Your task to perform on an android device: toggle improve location accuracy Image 0: 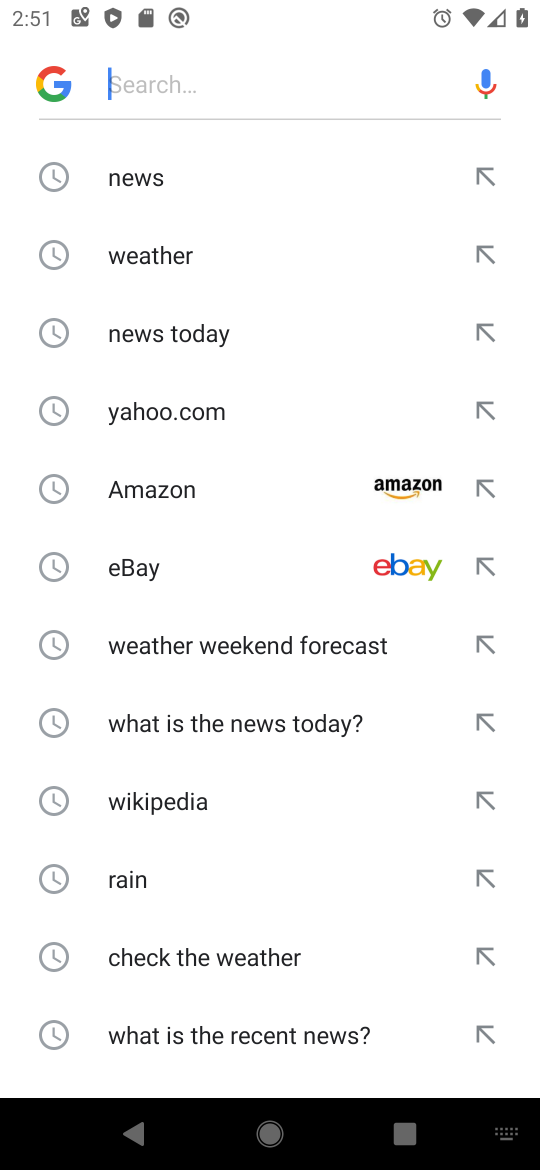
Step 0: press home button
Your task to perform on an android device: toggle improve location accuracy Image 1: 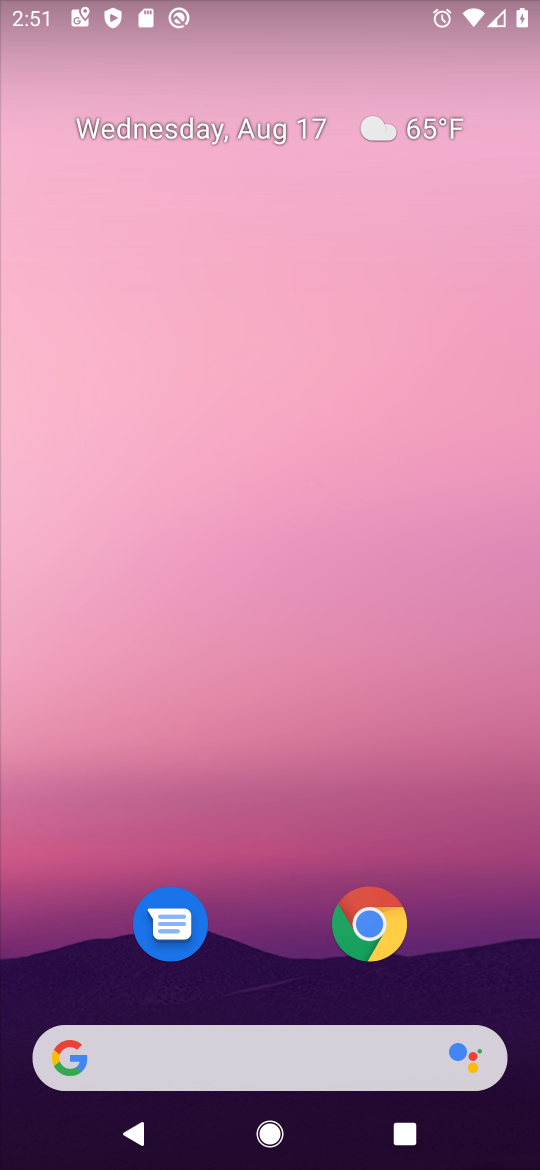
Step 1: drag from (240, 1065) to (170, 154)
Your task to perform on an android device: toggle improve location accuracy Image 2: 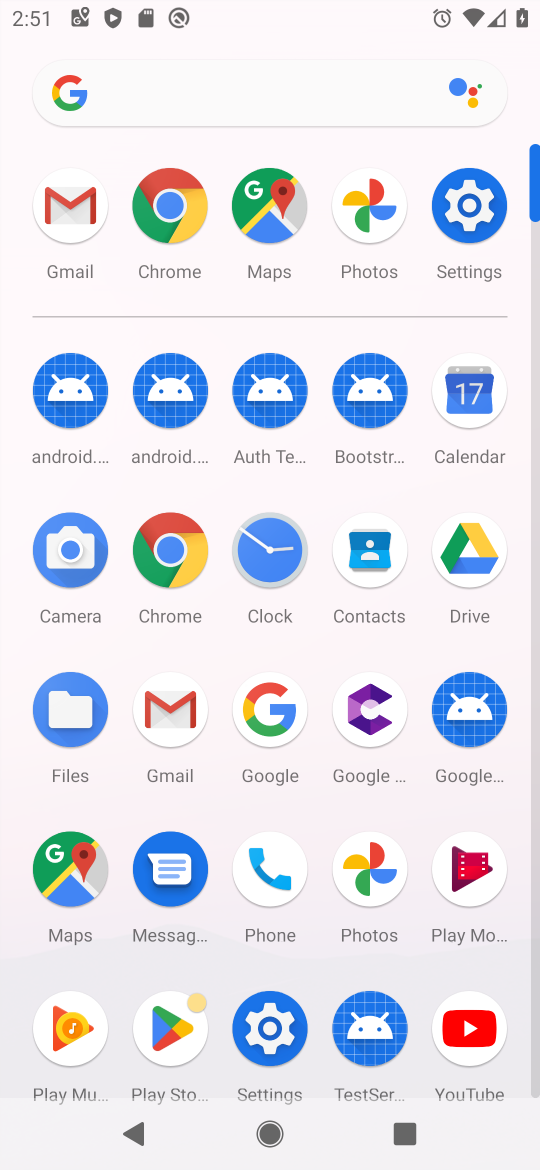
Step 2: click (468, 206)
Your task to perform on an android device: toggle improve location accuracy Image 3: 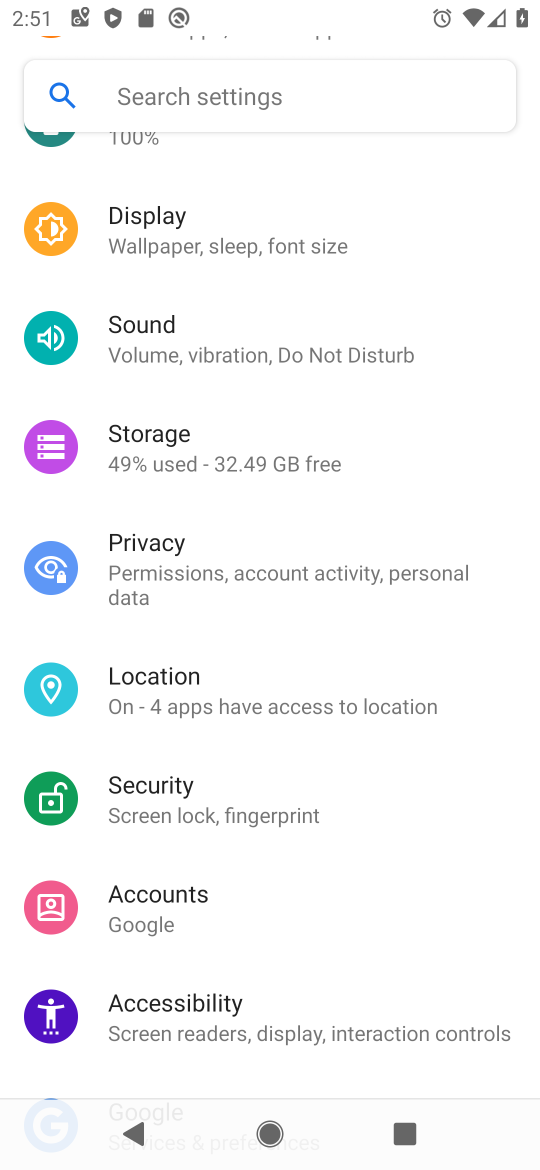
Step 3: click (192, 709)
Your task to perform on an android device: toggle improve location accuracy Image 4: 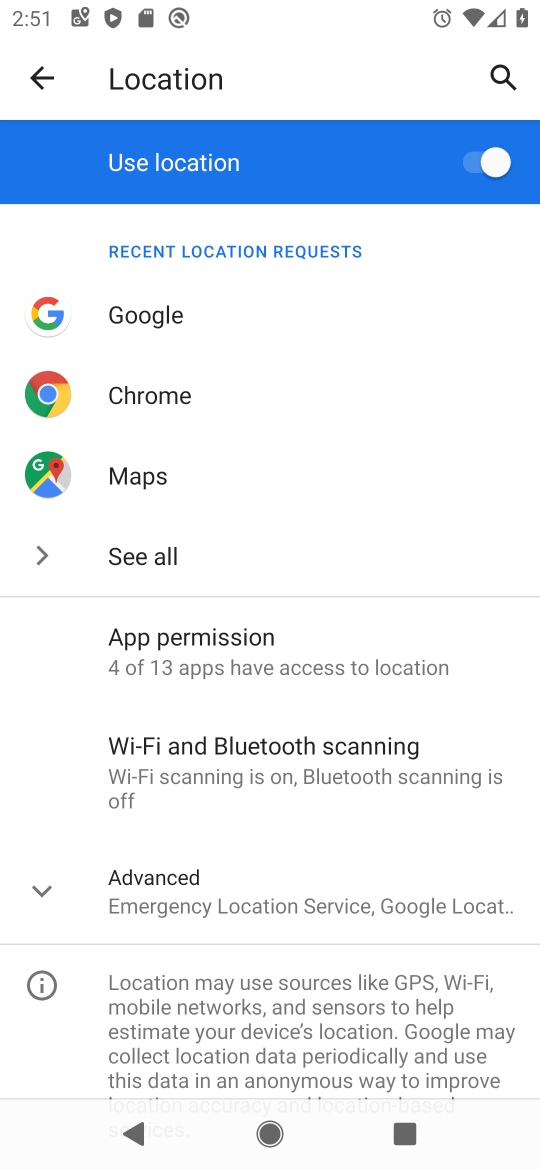
Step 4: click (187, 897)
Your task to perform on an android device: toggle improve location accuracy Image 5: 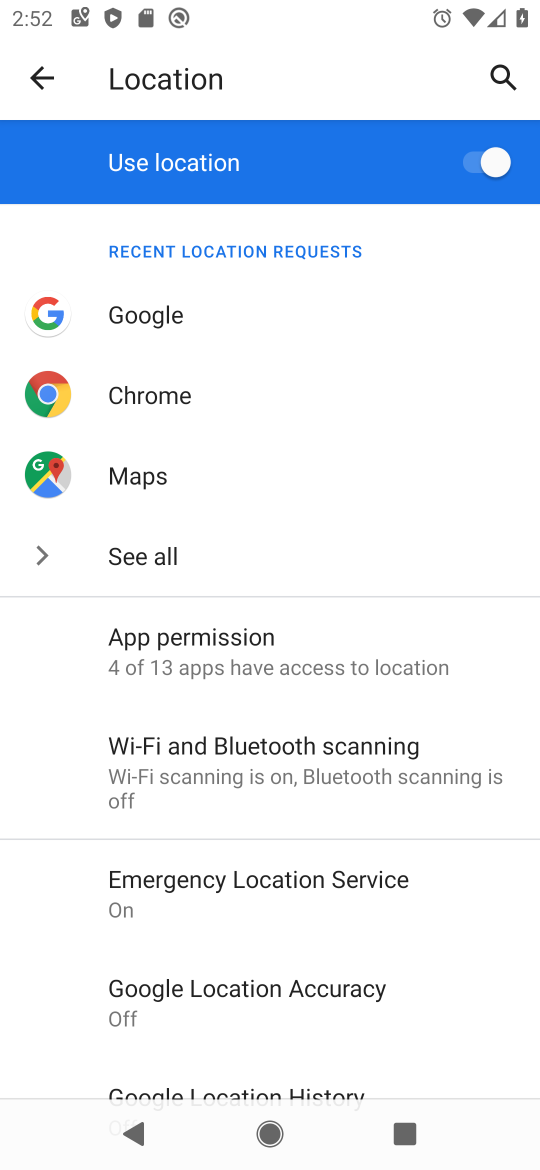
Step 5: click (208, 982)
Your task to perform on an android device: toggle improve location accuracy Image 6: 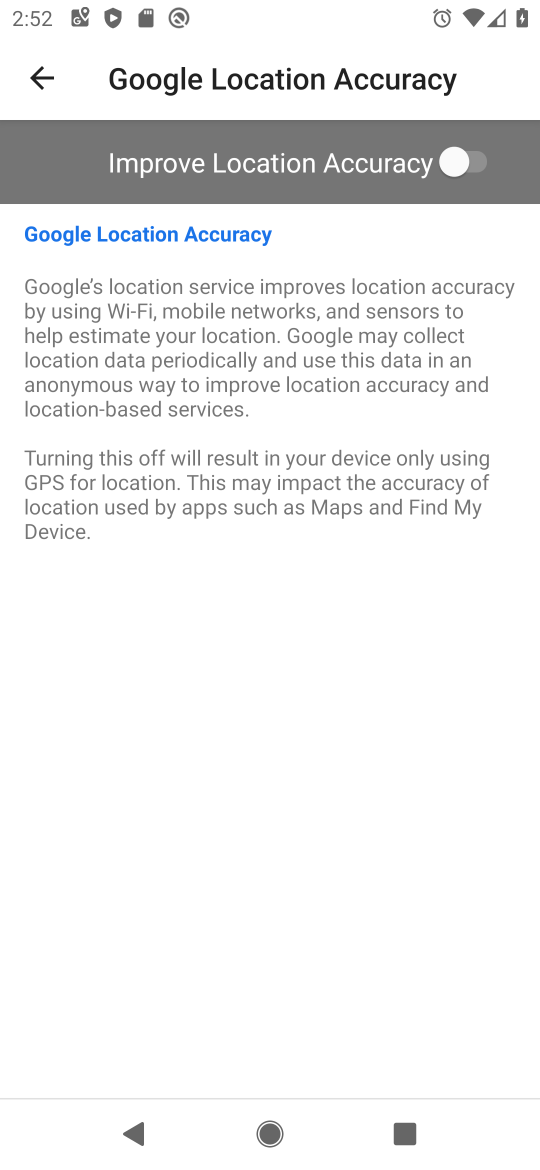
Step 6: click (485, 159)
Your task to perform on an android device: toggle improve location accuracy Image 7: 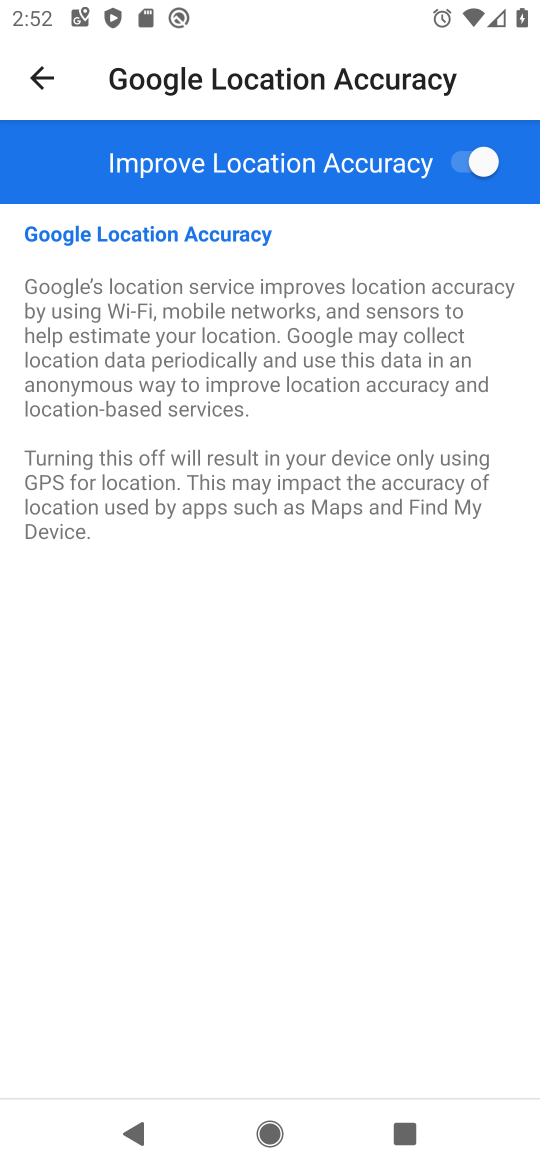
Step 7: task complete